Your task to perform on an android device: Go to location settings Image 0: 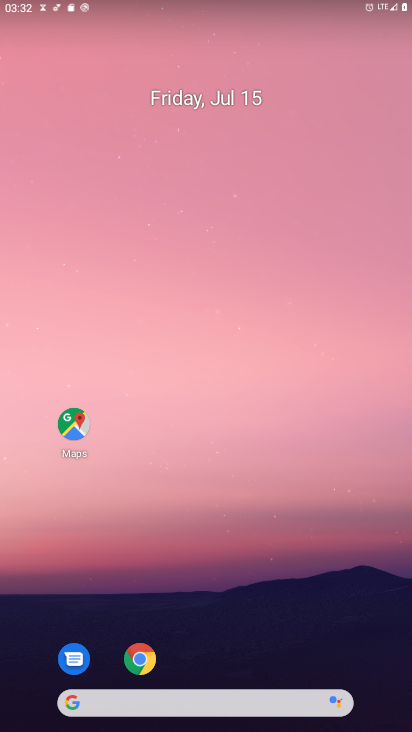
Step 0: drag from (266, 640) to (276, 305)
Your task to perform on an android device: Go to location settings Image 1: 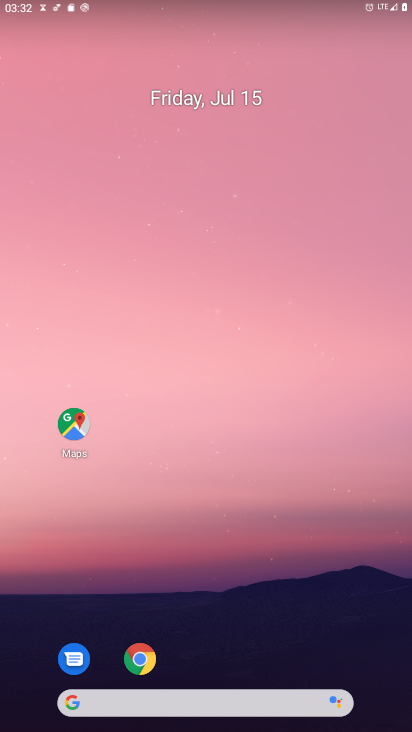
Step 1: drag from (163, 586) to (197, 116)
Your task to perform on an android device: Go to location settings Image 2: 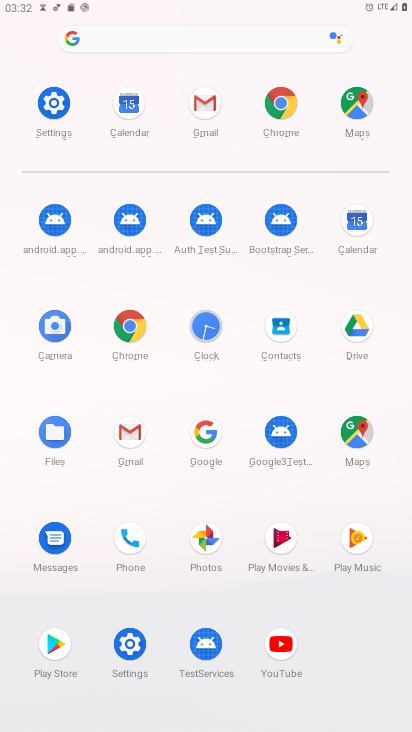
Step 2: click (38, 102)
Your task to perform on an android device: Go to location settings Image 3: 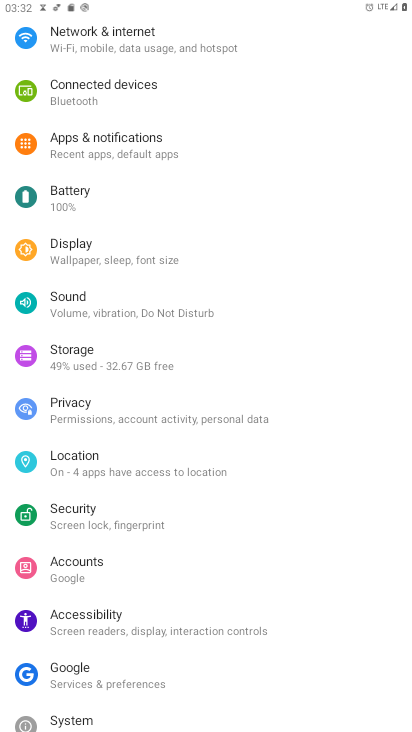
Step 3: click (109, 460)
Your task to perform on an android device: Go to location settings Image 4: 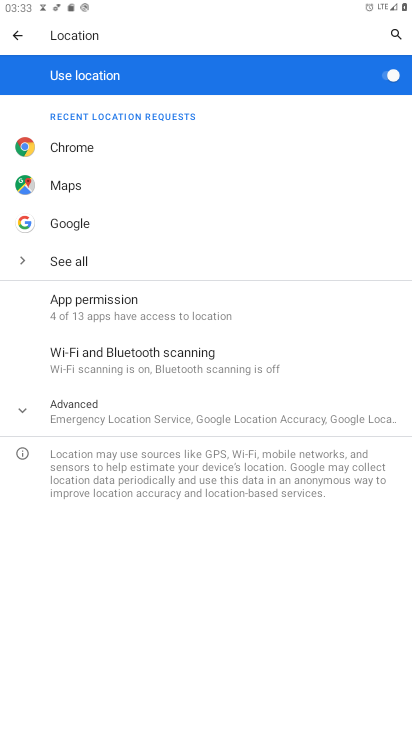
Step 4: task complete